Your task to perform on an android device: set the stopwatch Image 0: 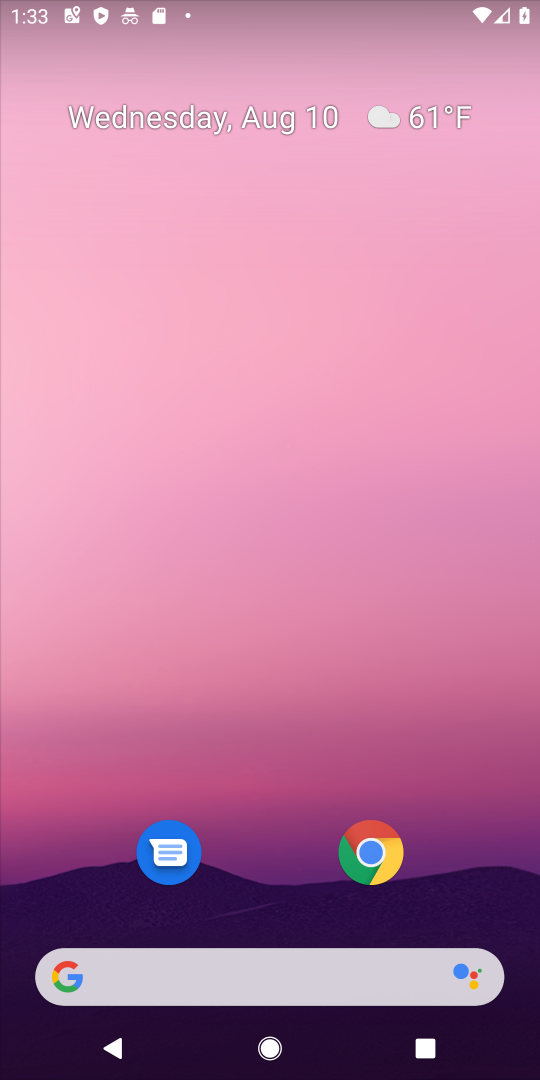
Step 0: drag from (297, 778) to (295, 83)
Your task to perform on an android device: set the stopwatch Image 1: 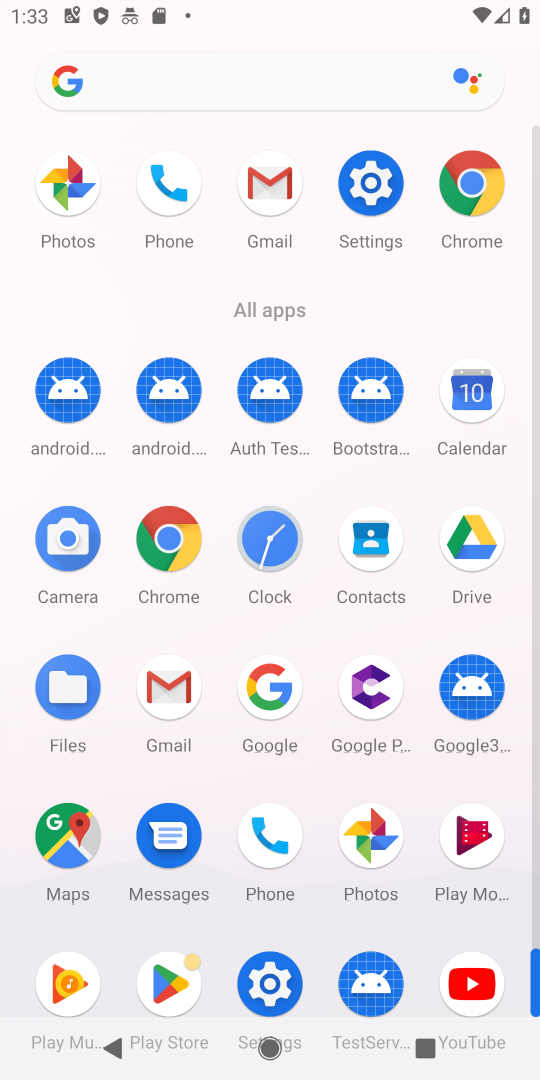
Step 1: click (265, 541)
Your task to perform on an android device: set the stopwatch Image 2: 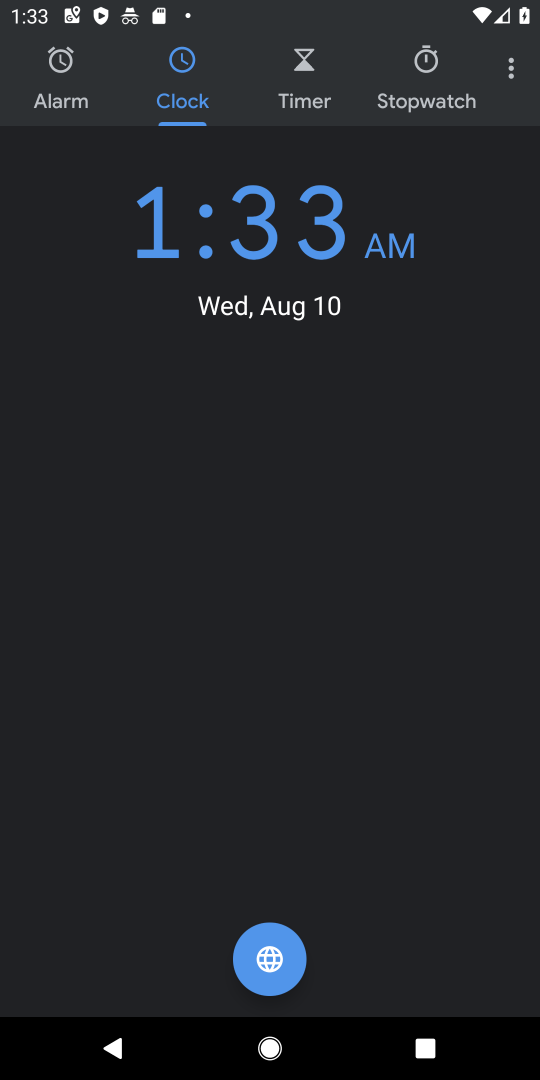
Step 2: click (446, 58)
Your task to perform on an android device: set the stopwatch Image 3: 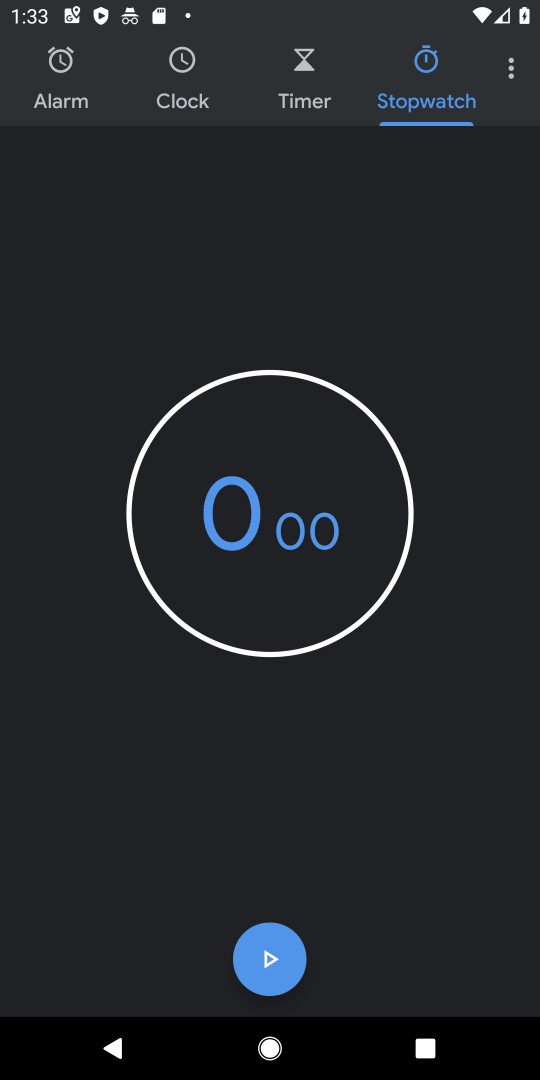
Step 3: click (259, 972)
Your task to perform on an android device: set the stopwatch Image 4: 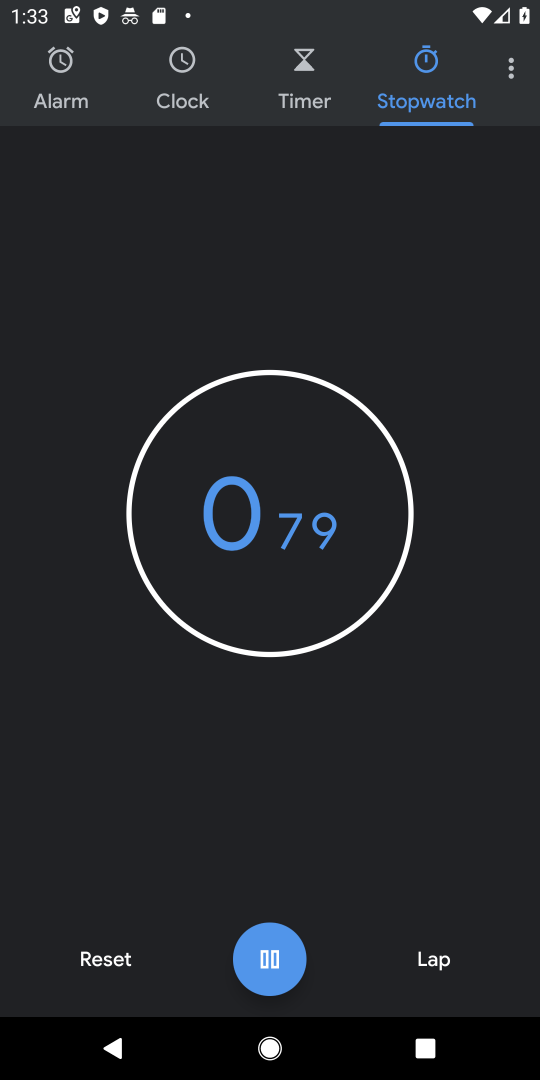
Step 4: click (259, 971)
Your task to perform on an android device: set the stopwatch Image 5: 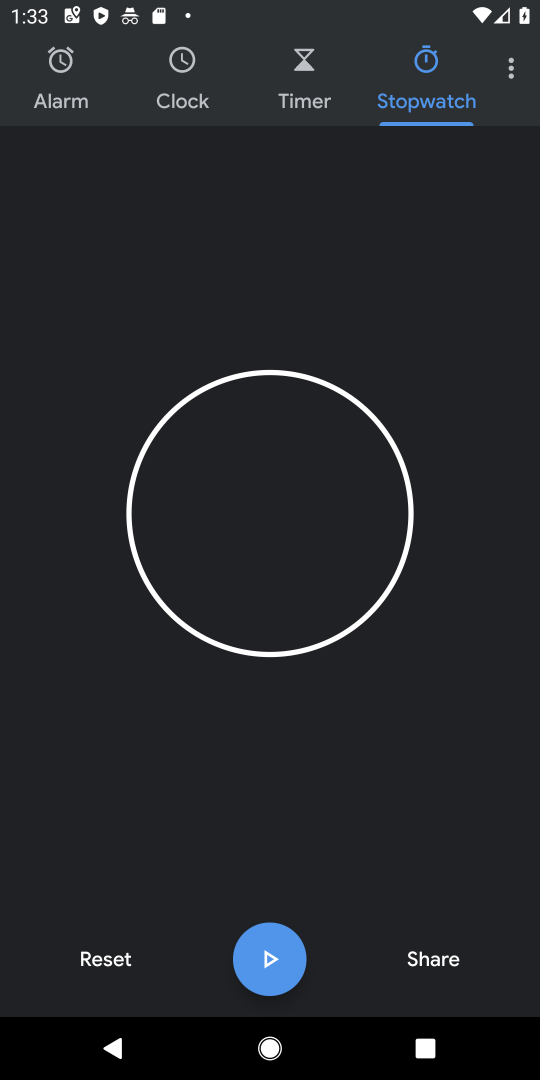
Step 5: task complete